Your task to perform on an android device: Go to sound settings Image 0: 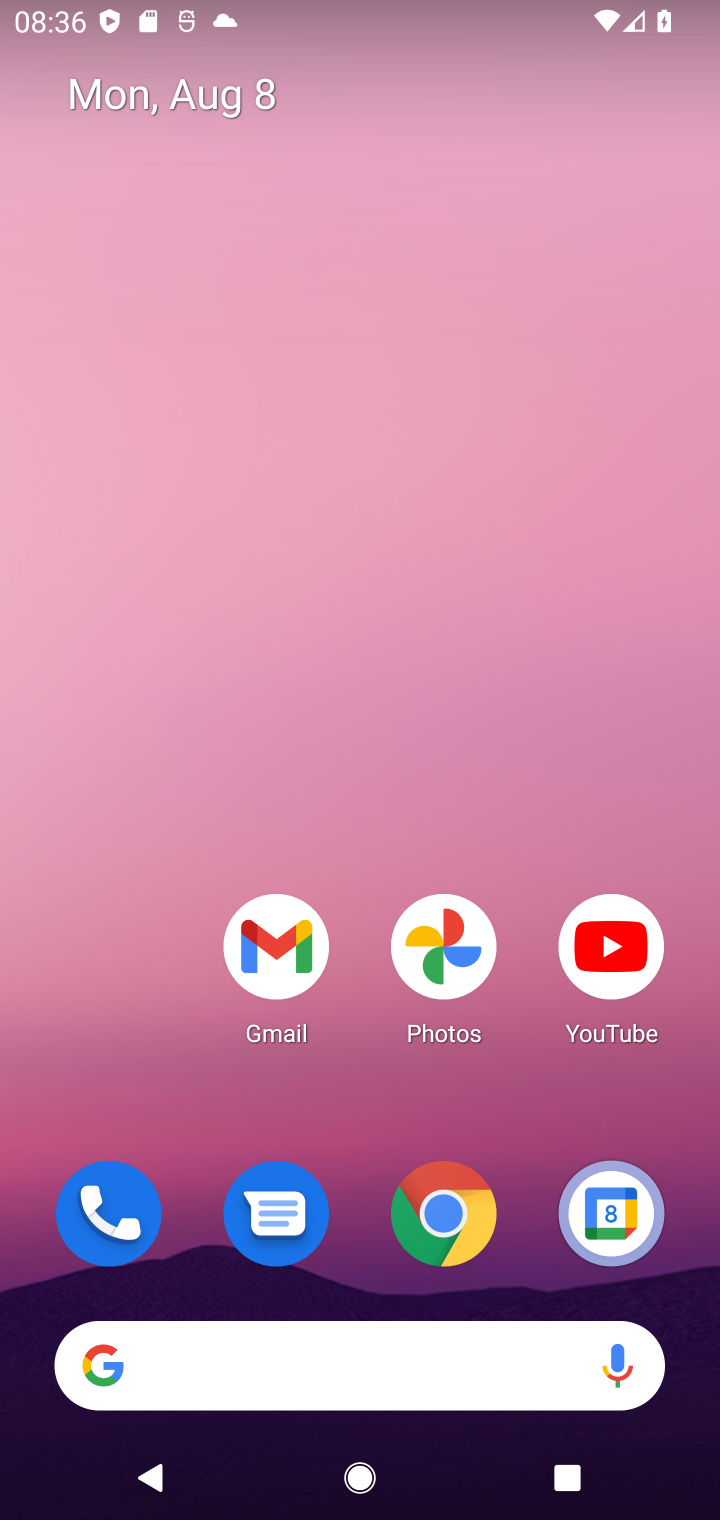
Step 0: drag from (380, 1151) to (330, 435)
Your task to perform on an android device: Go to sound settings Image 1: 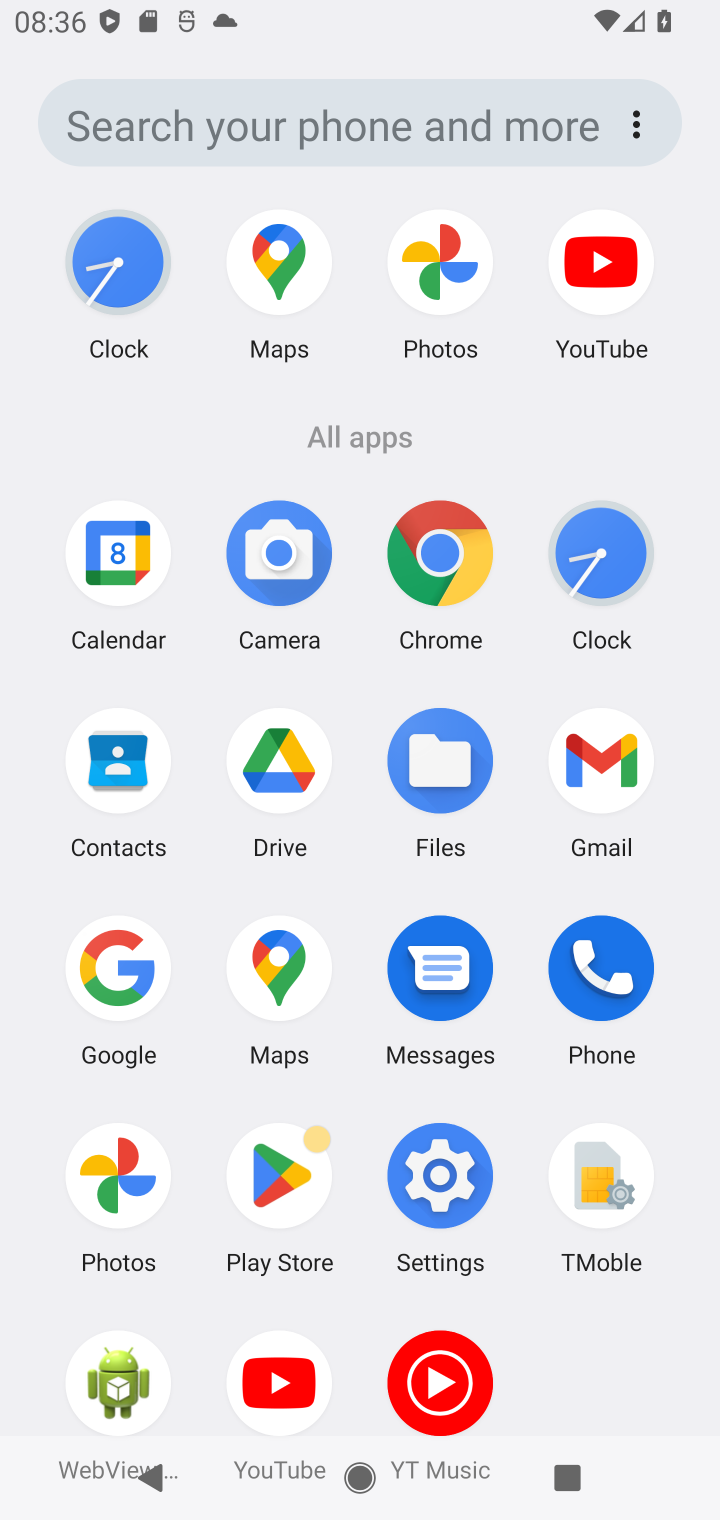
Step 1: click (448, 1165)
Your task to perform on an android device: Go to sound settings Image 2: 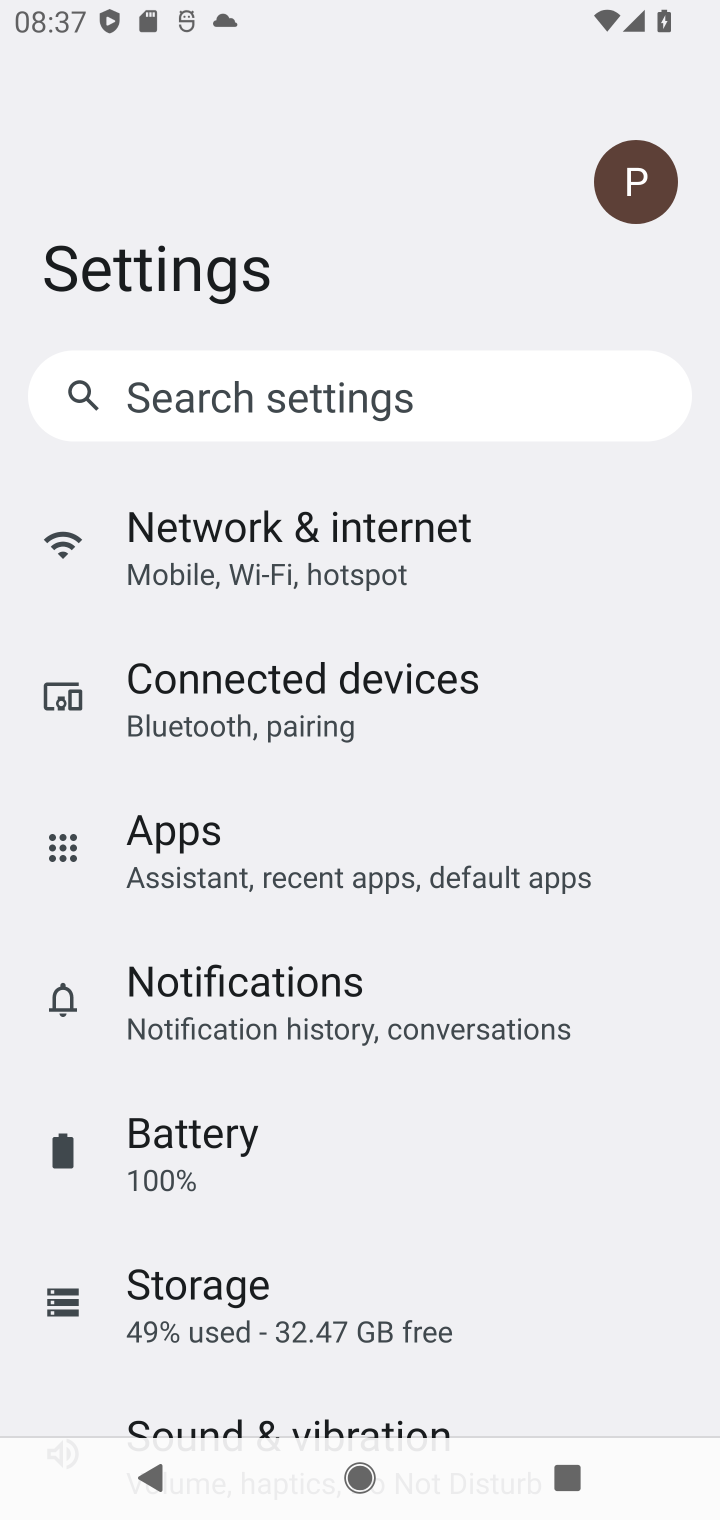
Step 2: drag from (337, 799) to (320, 253)
Your task to perform on an android device: Go to sound settings Image 3: 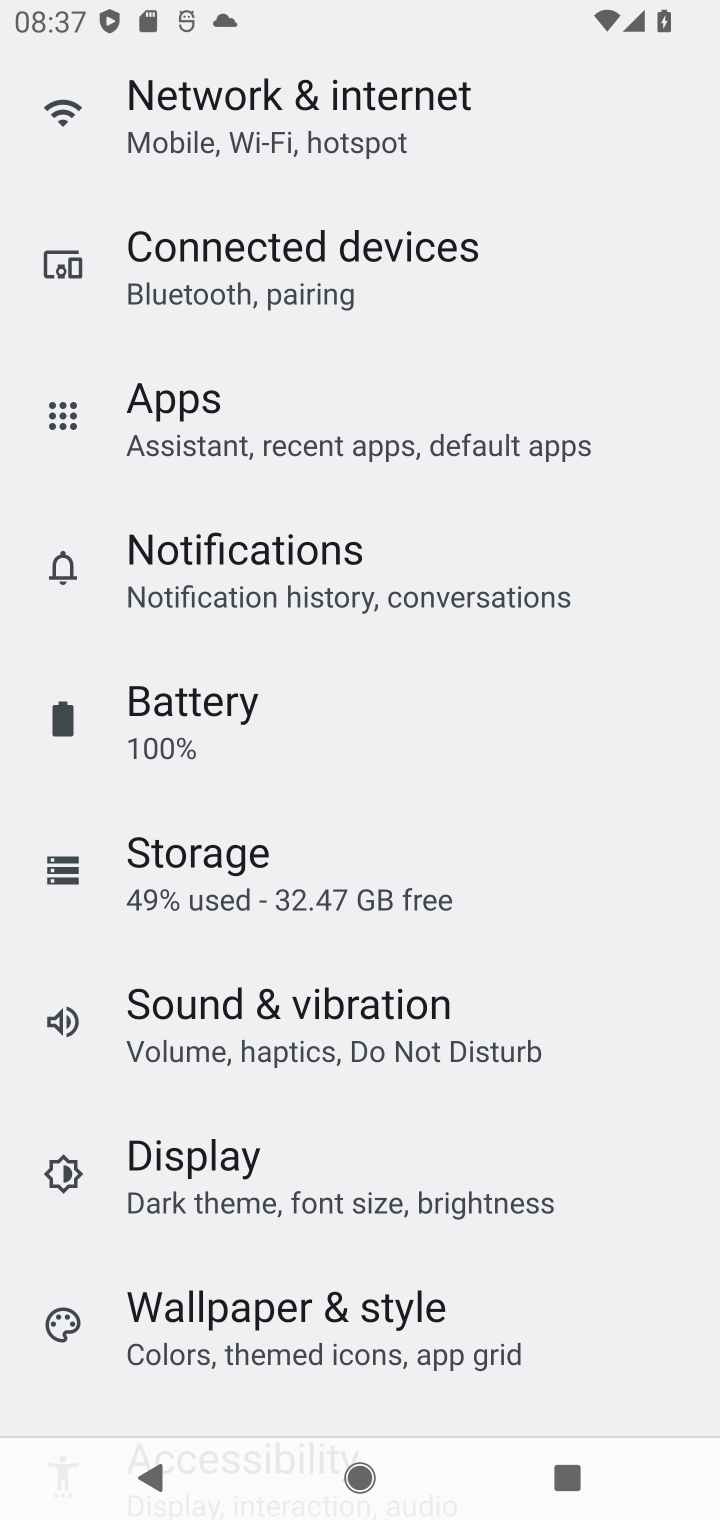
Step 3: click (381, 1040)
Your task to perform on an android device: Go to sound settings Image 4: 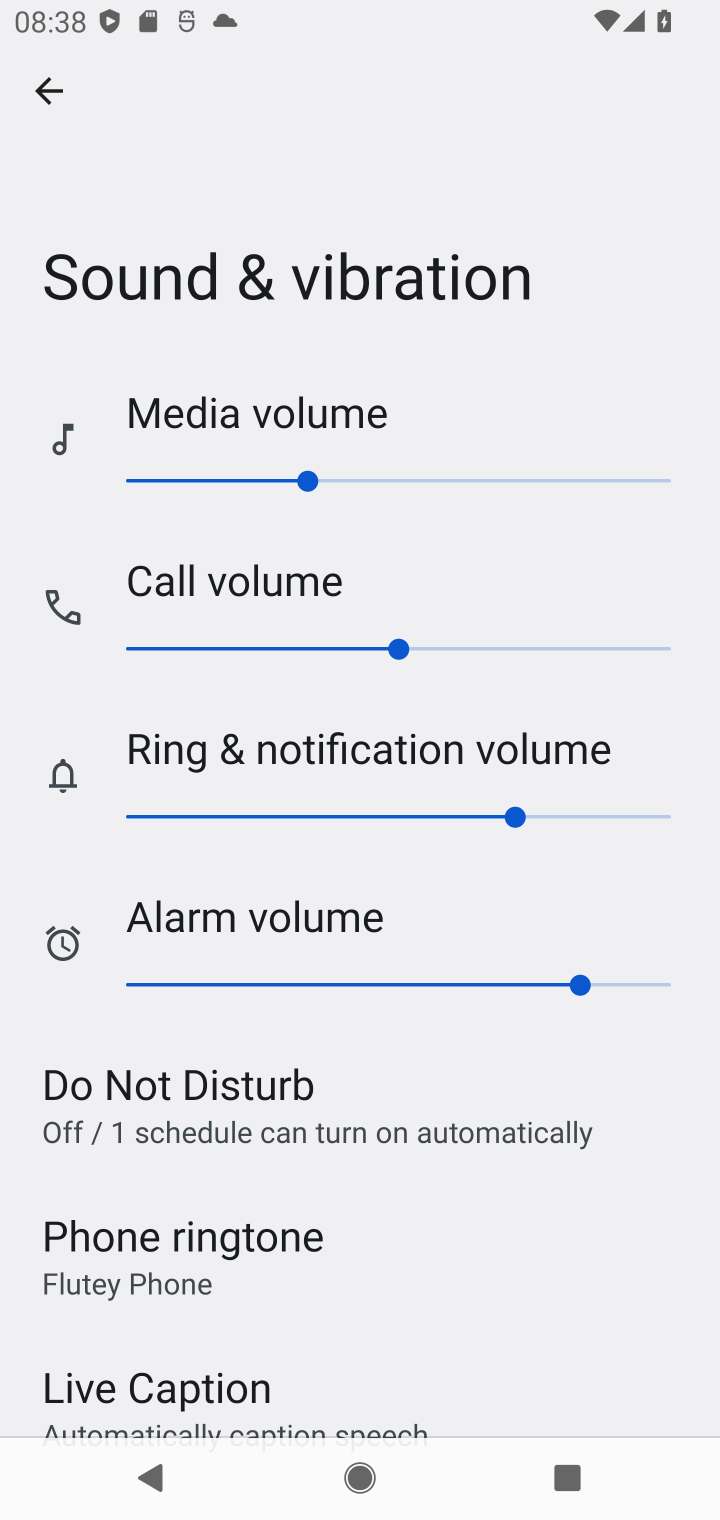
Step 4: task complete